Your task to perform on an android device: search for starred emails in the gmail app Image 0: 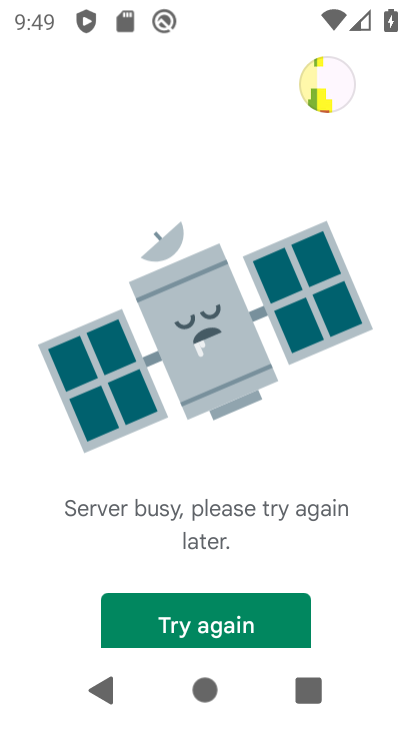
Step 0: press home button
Your task to perform on an android device: search for starred emails in the gmail app Image 1: 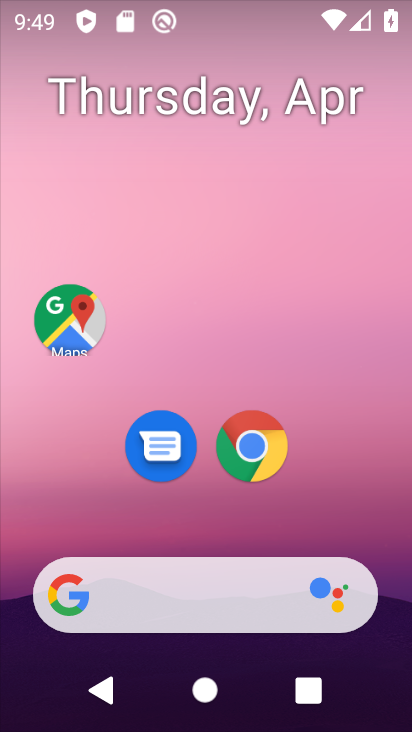
Step 1: drag from (235, 521) to (231, 12)
Your task to perform on an android device: search for starred emails in the gmail app Image 2: 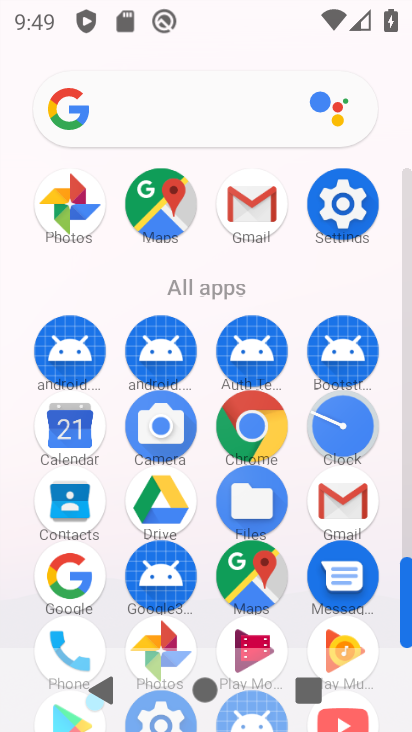
Step 2: click (354, 504)
Your task to perform on an android device: search for starred emails in the gmail app Image 3: 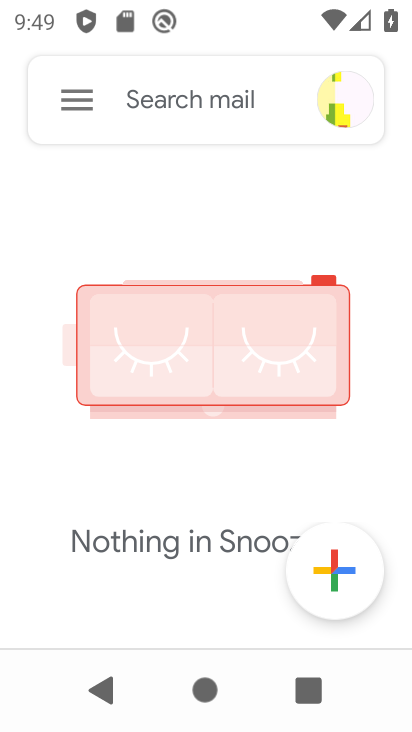
Step 3: click (199, 91)
Your task to perform on an android device: search for starred emails in the gmail app Image 4: 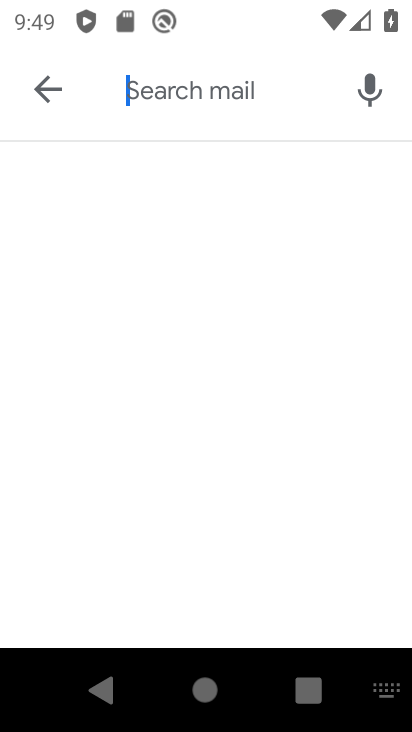
Step 4: type "starred"
Your task to perform on an android device: search for starred emails in the gmail app Image 5: 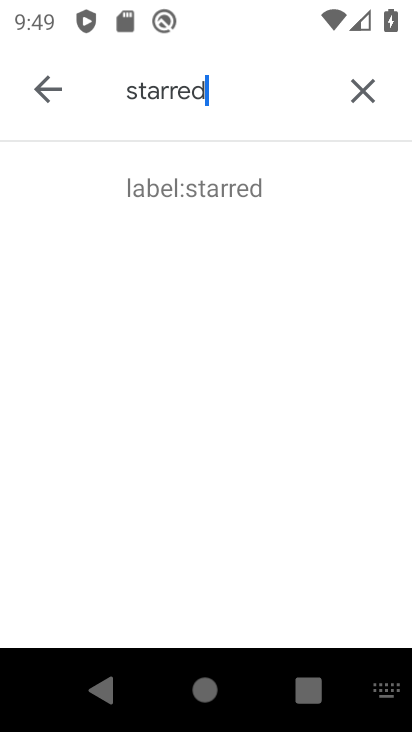
Step 5: click (251, 191)
Your task to perform on an android device: search for starred emails in the gmail app Image 6: 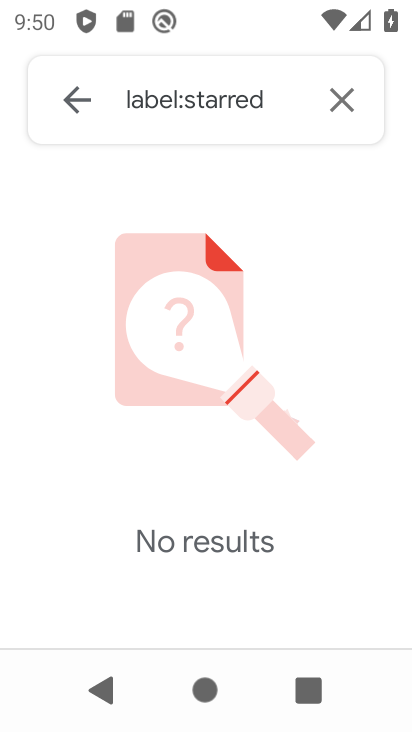
Step 6: task complete